Your task to perform on an android device: change the clock display to analog Image 0: 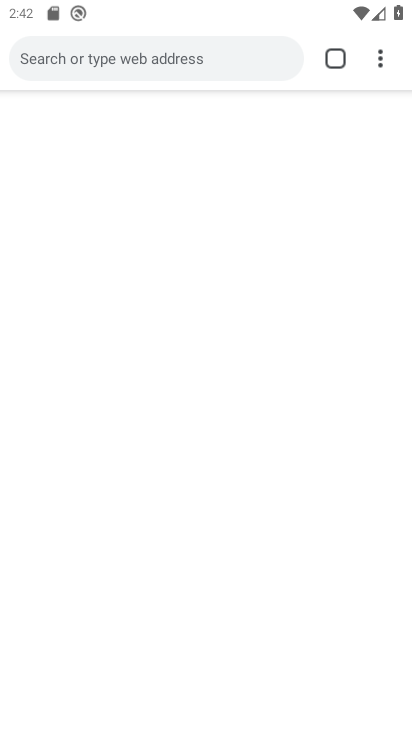
Step 0: drag from (361, 606) to (364, 182)
Your task to perform on an android device: change the clock display to analog Image 1: 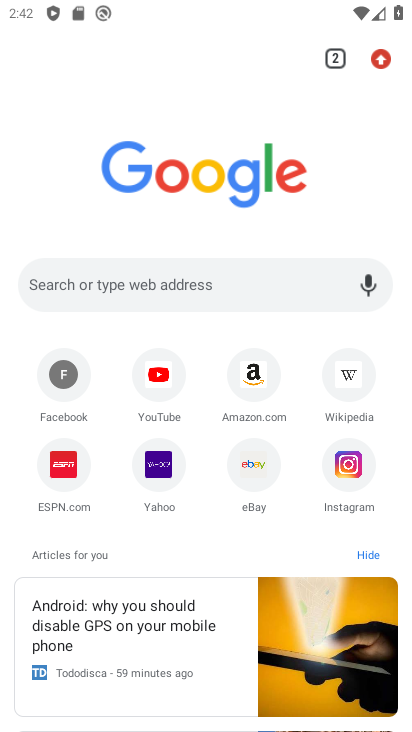
Step 1: press home button
Your task to perform on an android device: change the clock display to analog Image 2: 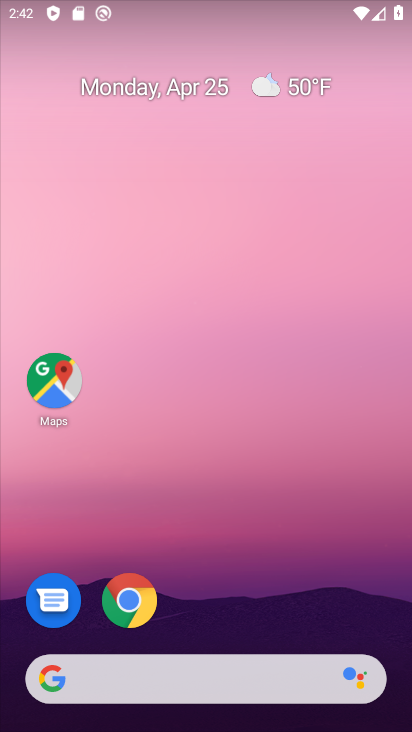
Step 2: drag from (266, 577) to (343, 166)
Your task to perform on an android device: change the clock display to analog Image 3: 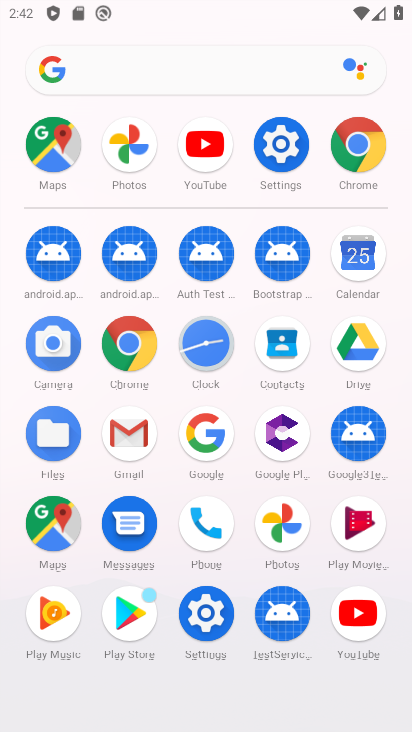
Step 3: click (203, 343)
Your task to perform on an android device: change the clock display to analog Image 4: 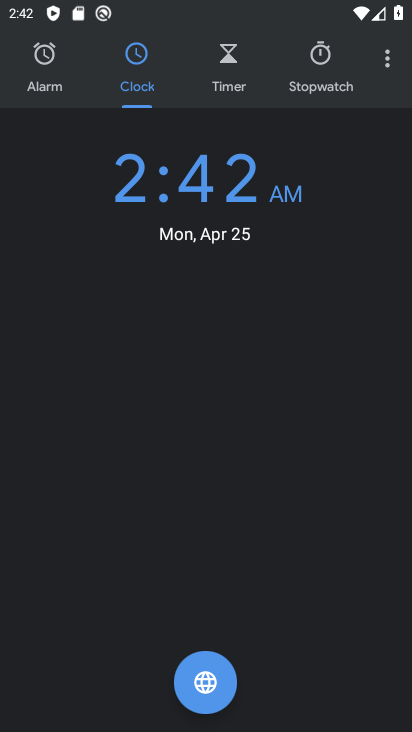
Step 4: click (386, 82)
Your task to perform on an android device: change the clock display to analog Image 5: 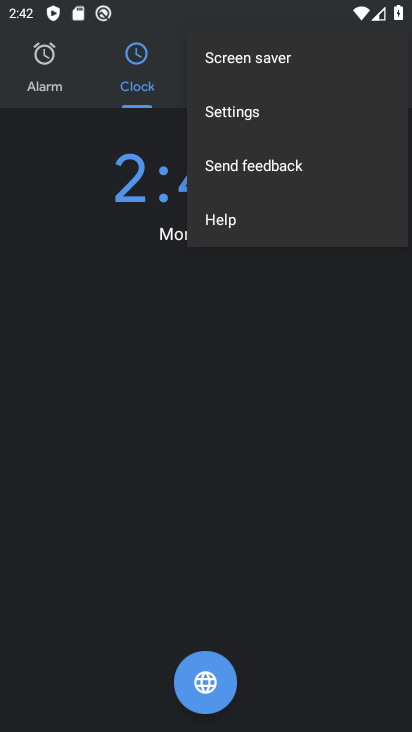
Step 5: click (260, 118)
Your task to perform on an android device: change the clock display to analog Image 6: 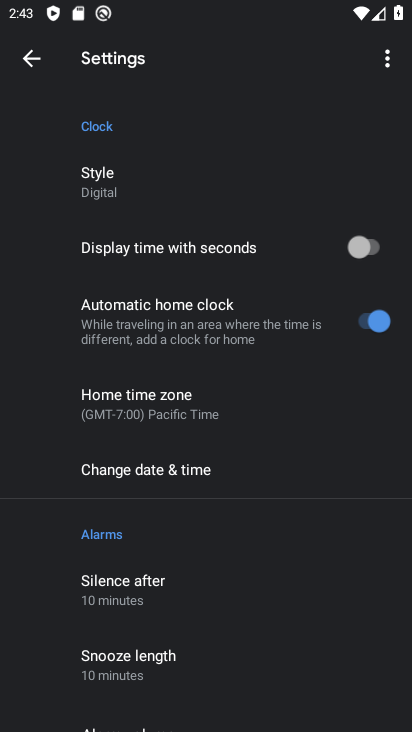
Step 6: click (96, 181)
Your task to perform on an android device: change the clock display to analog Image 7: 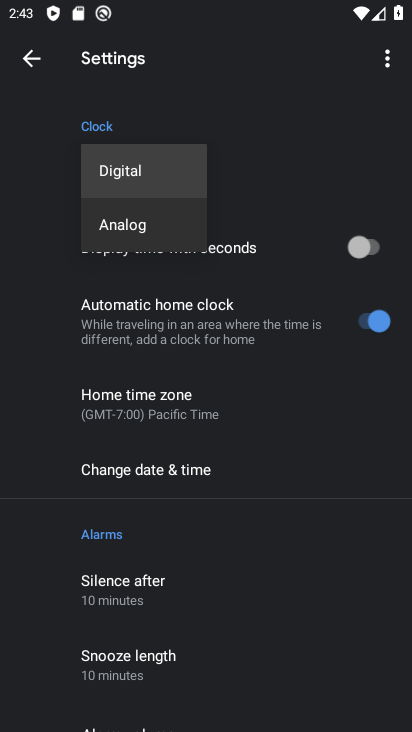
Step 7: click (142, 231)
Your task to perform on an android device: change the clock display to analog Image 8: 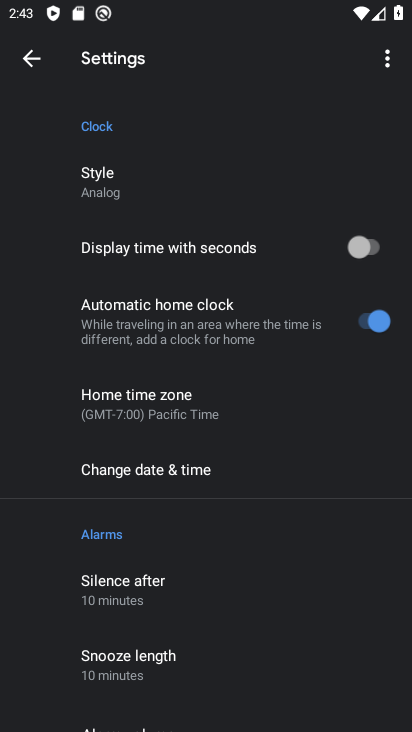
Step 8: task complete